Your task to perform on an android device: Open sound settings Image 0: 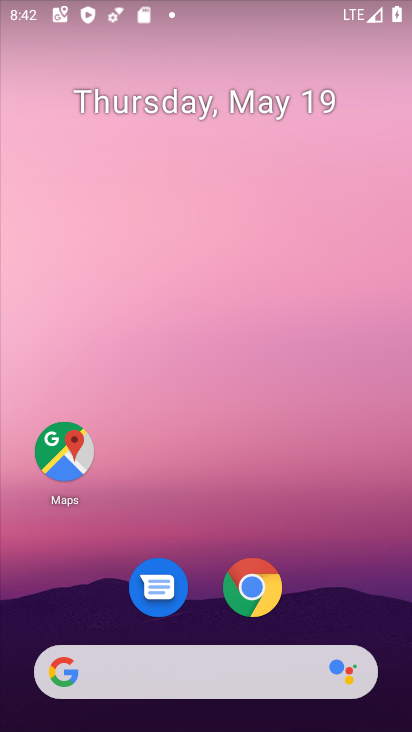
Step 0: drag from (320, 478) to (256, 43)
Your task to perform on an android device: Open sound settings Image 1: 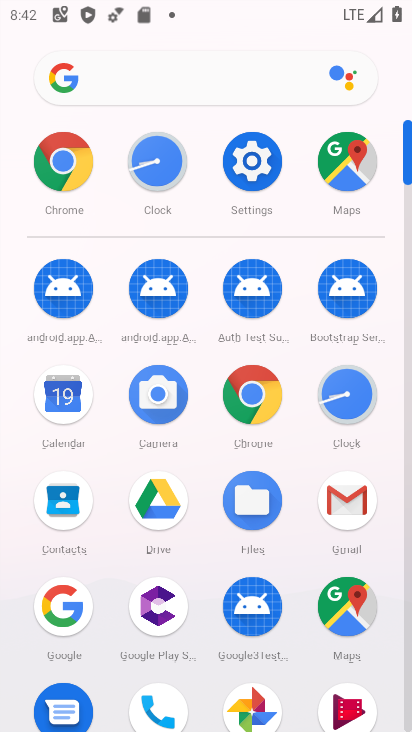
Step 1: drag from (10, 575) to (19, 300)
Your task to perform on an android device: Open sound settings Image 2: 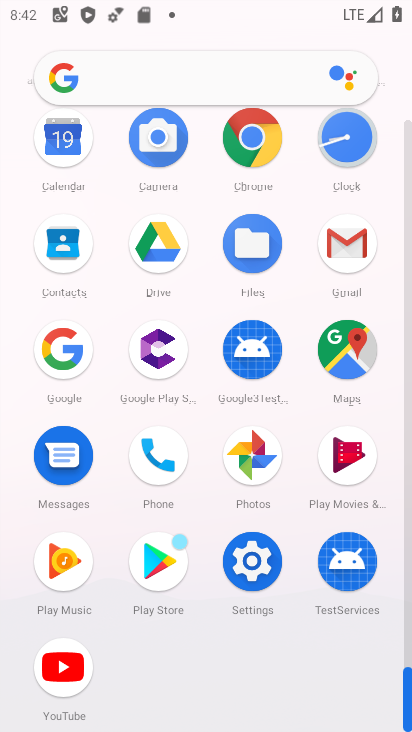
Step 2: click (249, 560)
Your task to perform on an android device: Open sound settings Image 3: 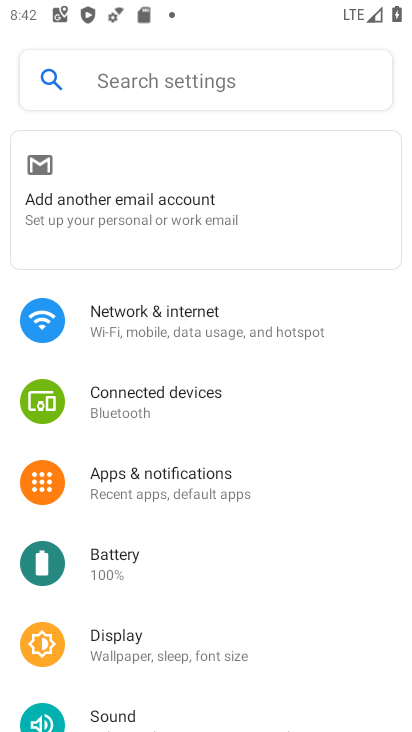
Step 3: drag from (292, 571) to (298, 156)
Your task to perform on an android device: Open sound settings Image 4: 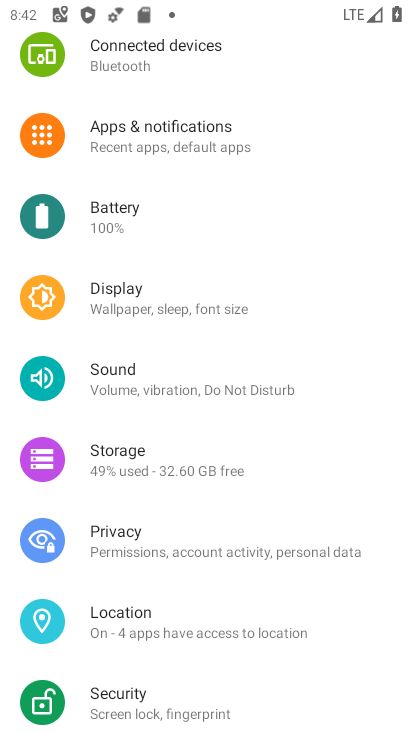
Step 4: click (179, 370)
Your task to perform on an android device: Open sound settings Image 5: 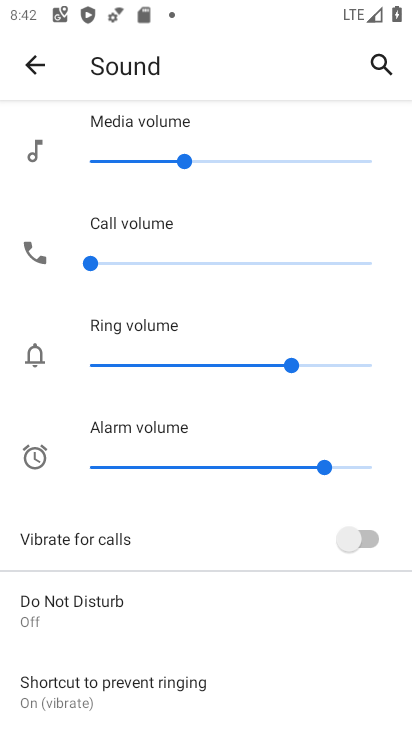
Step 5: task complete